Your task to perform on an android device: Go to Amazon Image 0: 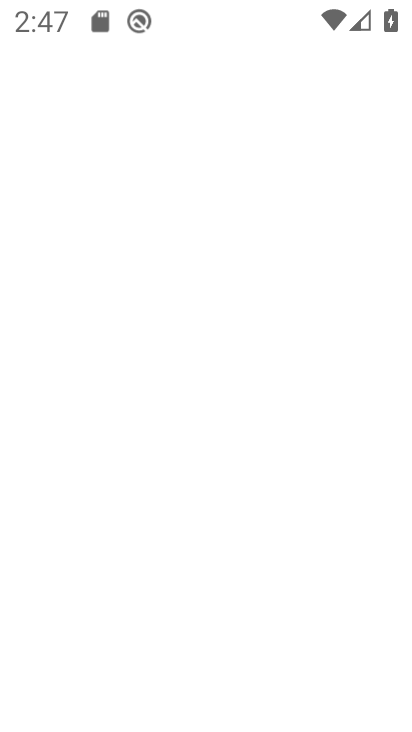
Step 0: drag from (321, 556) to (397, 307)
Your task to perform on an android device: Go to Amazon Image 1: 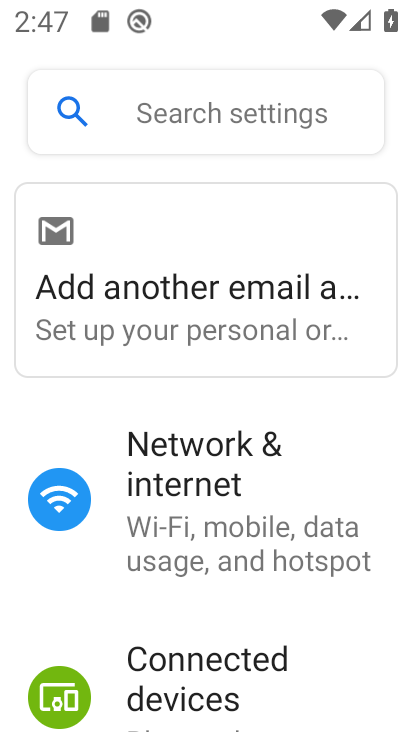
Step 1: press home button
Your task to perform on an android device: Go to Amazon Image 2: 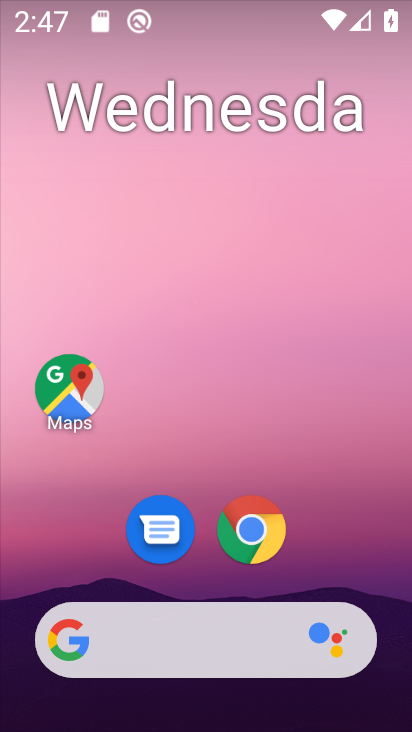
Step 2: click (246, 535)
Your task to perform on an android device: Go to Amazon Image 3: 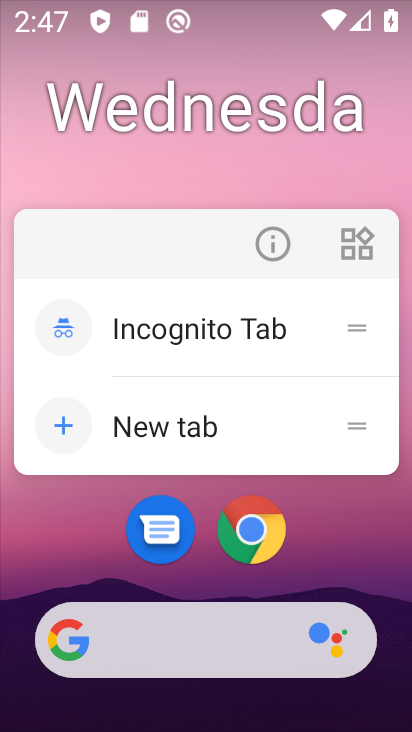
Step 3: click (246, 535)
Your task to perform on an android device: Go to Amazon Image 4: 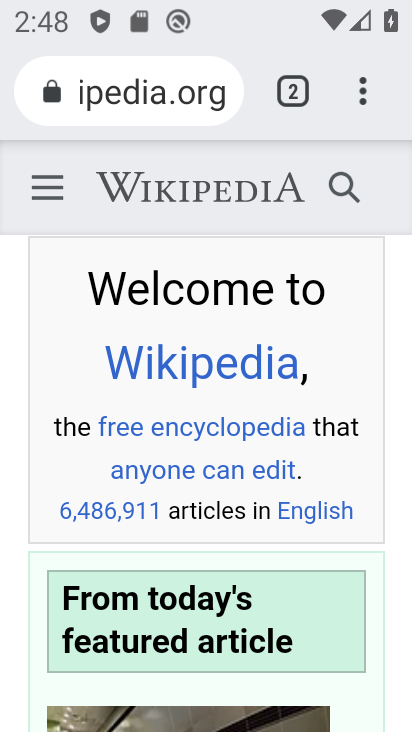
Step 4: click (174, 95)
Your task to perform on an android device: Go to Amazon Image 5: 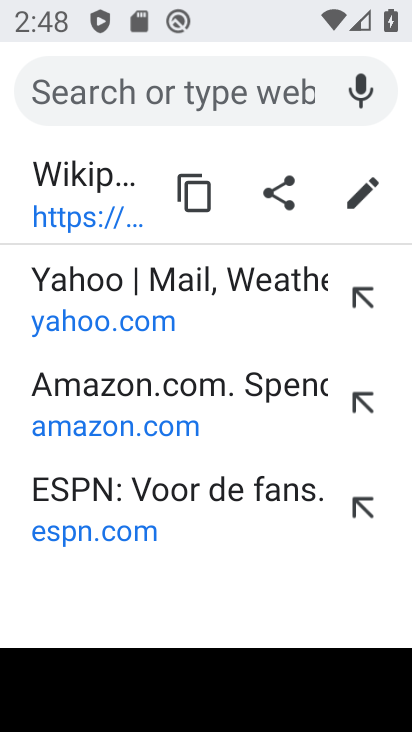
Step 5: type "amazon"
Your task to perform on an android device: Go to Amazon Image 6: 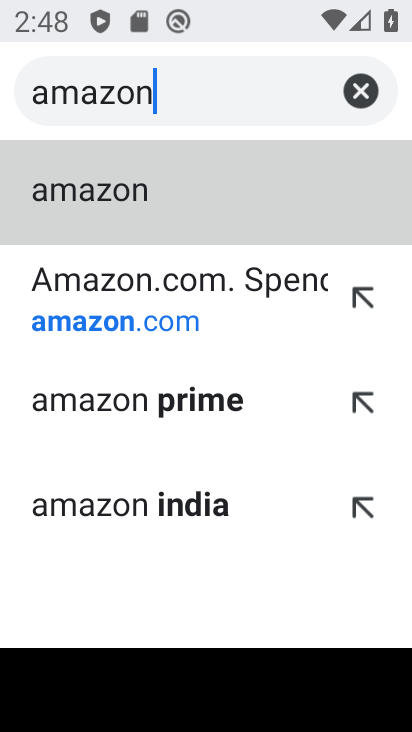
Step 6: click (137, 185)
Your task to perform on an android device: Go to Amazon Image 7: 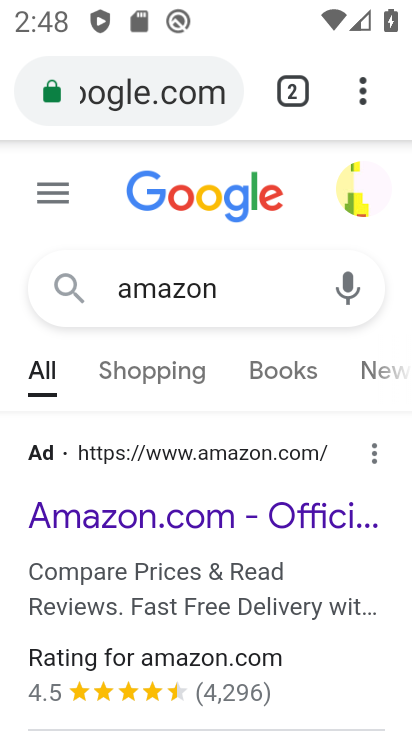
Step 7: click (176, 521)
Your task to perform on an android device: Go to Amazon Image 8: 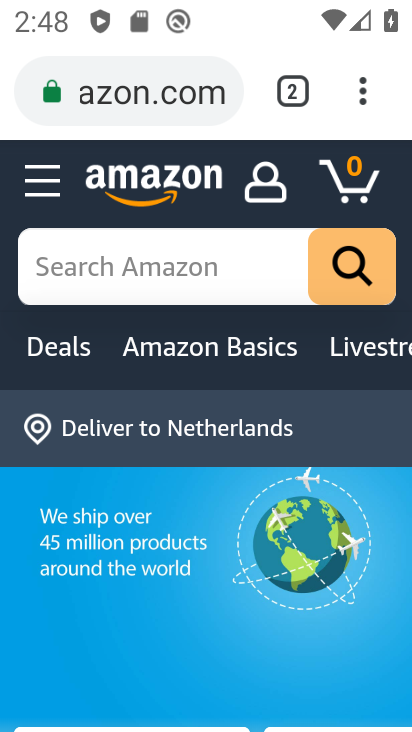
Step 8: task complete